Your task to perform on an android device: open sync settings in chrome Image 0: 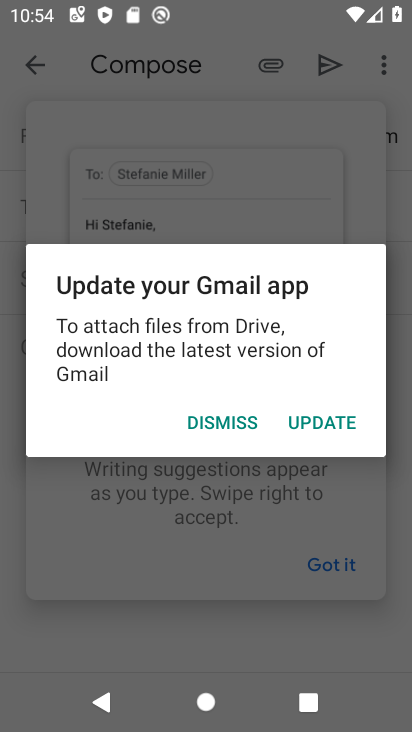
Step 0: press home button
Your task to perform on an android device: open sync settings in chrome Image 1: 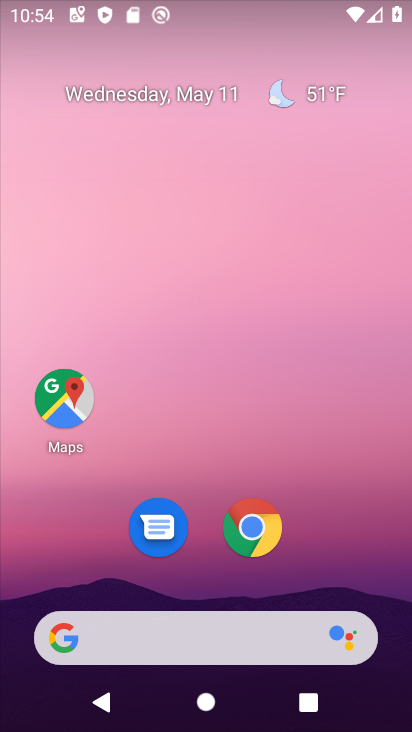
Step 1: click (264, 532)
Your task to perform on an android device: open sync settings in chrome Image 2: 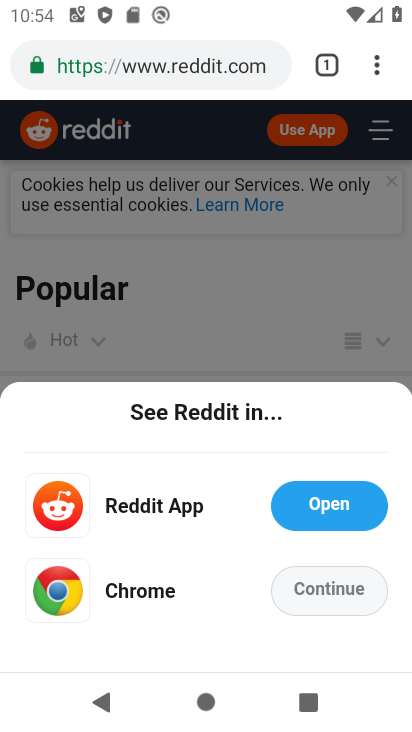
Step 2: click (374, 69)
Your task to perform on an android device: open sync settings in chrome Image 3: 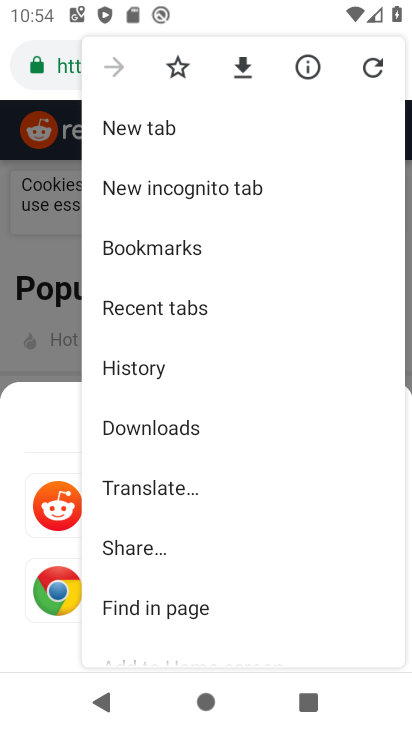
Step 3: drag from (156, 405) to (212, 253)
Your task to perform on an android device: open sync settings in chrome Image 4: 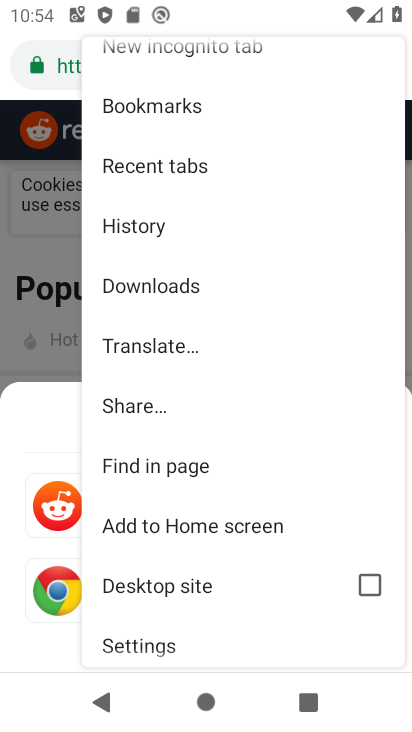
Step 4: click (134, 642)
Your task to perform on an android device: open sync settings in chrome Image 5: 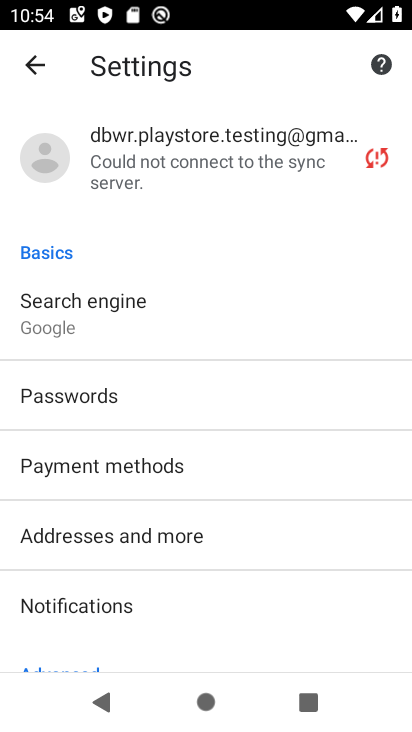
Step 5: drag from (133, 642) to (191, 442)
Your task to perform on an android device: open sync settings in chrome Image 6: 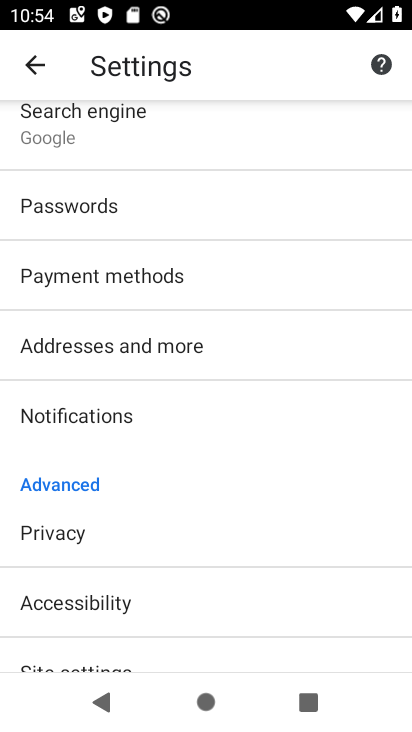
Step 6: drag from (115, 444) to (153, 294)
Your task to perform on an android device: open sync settings in chrome Image 7: 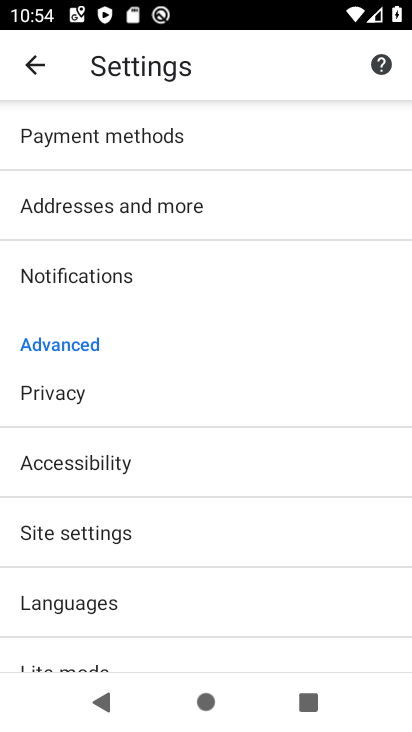
Step 7: click (103, 534)
Your task to perform on an android device: open sync settings in chrome Image 8: 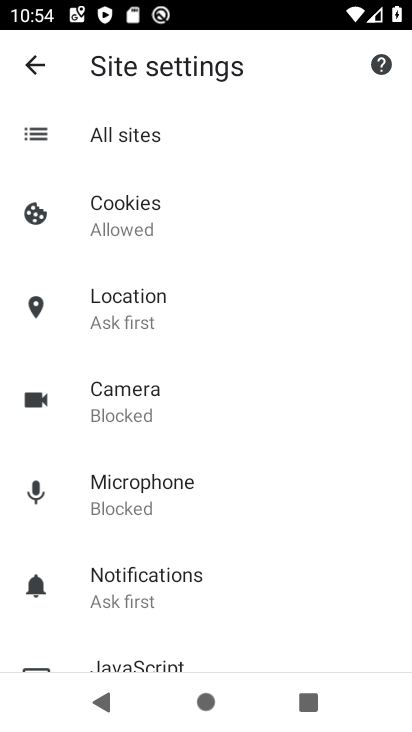
Step 8: drag from (113, 545) to (178, 330)
Your task to perform on an android device: open sync settings in chrome Image 9: 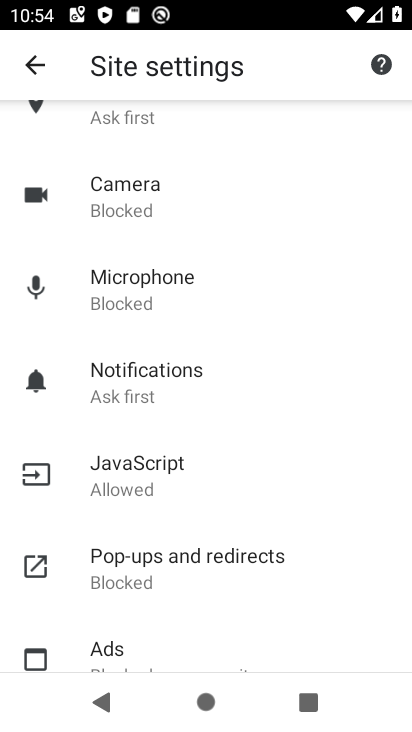
Step 9: drag from (112, 520) to (198, 271)
Your task to perform on an android device: open sync settings in chrome Image 10: 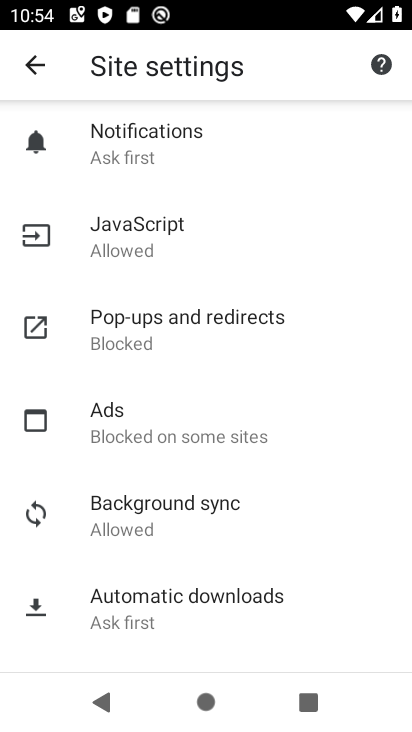
Step 10: click (129, 509)
Your task to perform on an android device: open sync settings in chrome Image 11: 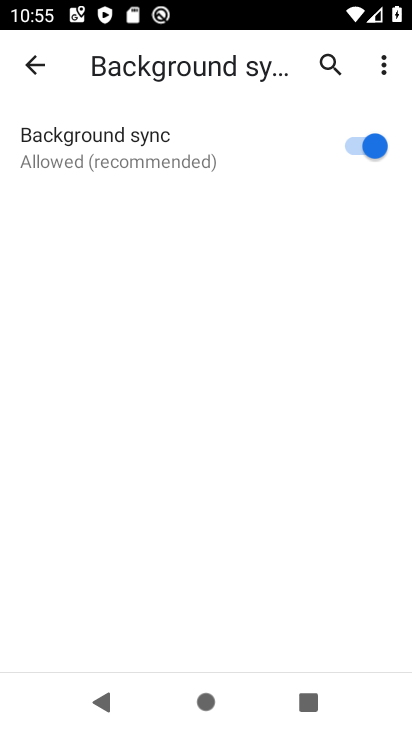
Step 11: task complete